Your task to perform on an android device: toggle location history Image 0: 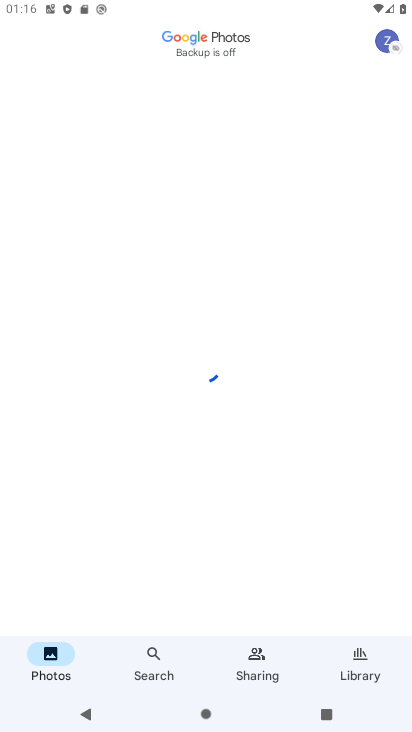
Step 0: press home button
Your task to perform on an android device: toggle location history Image 1: 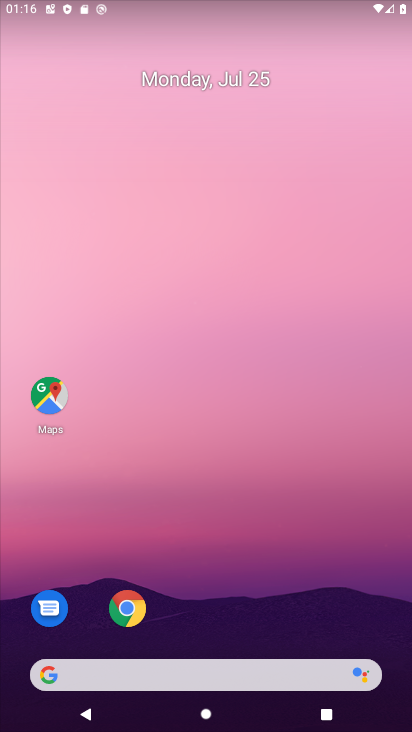
Step 1: drag from (210, 666) to (213, 48)
Your task to perform on an android device: toggle location history Image 2: 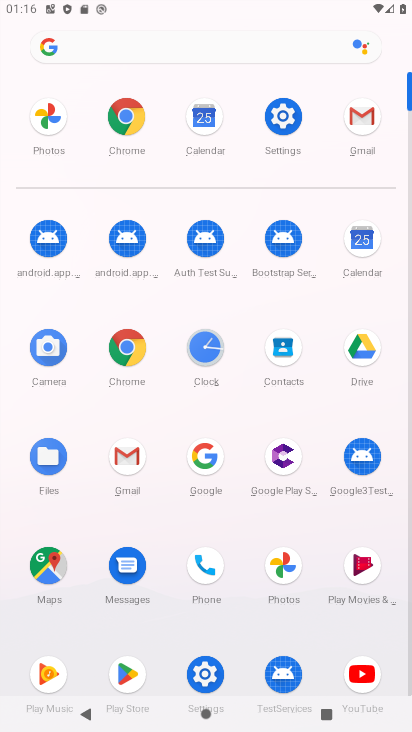
Step 2: click (278, 113)
Your task to perform on an android device: toggle location history Image 3: 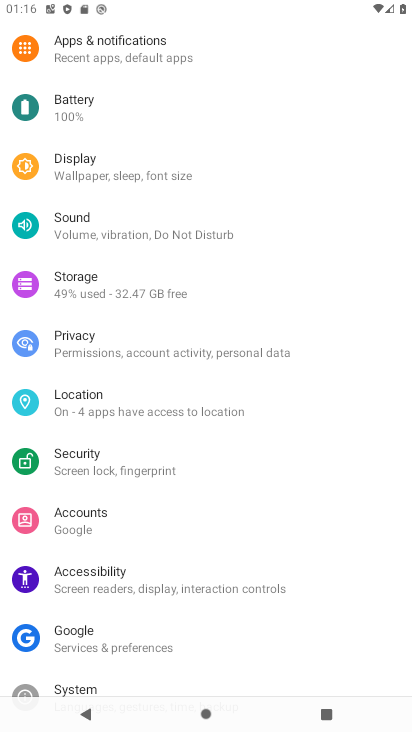
Step 3: click (112, 413)
Your task to perform on an android device: toggle location history Image 4: 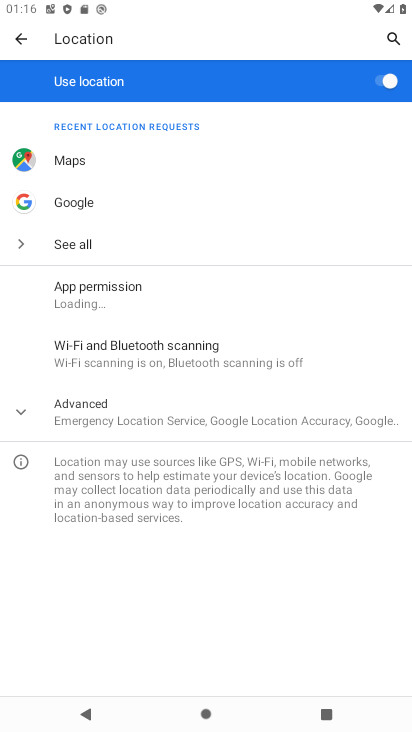
Step 4: click (118, 397)
Your task to perform on an android device: toggle location history Image 5: 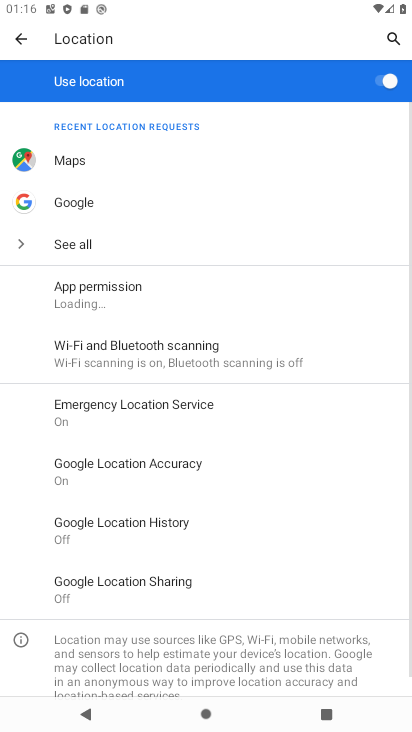
Step 5: click (164, 517)
Your task to perform on an android device: toggle location history Image 6: 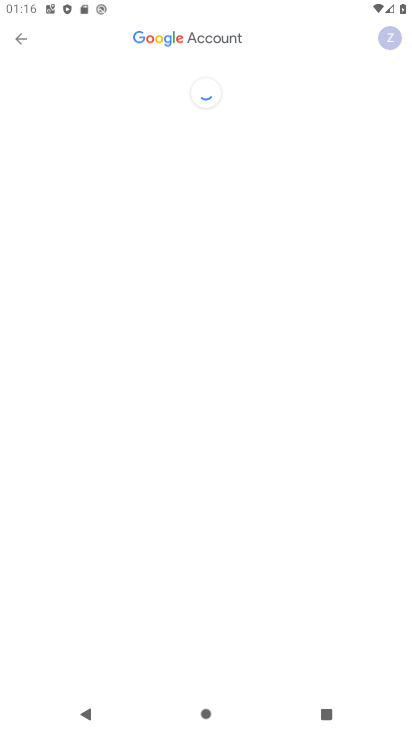
Step 6: drag from (267, 610) to (218, 211)
Your task to perform on an android device: toggle location history Image 7: 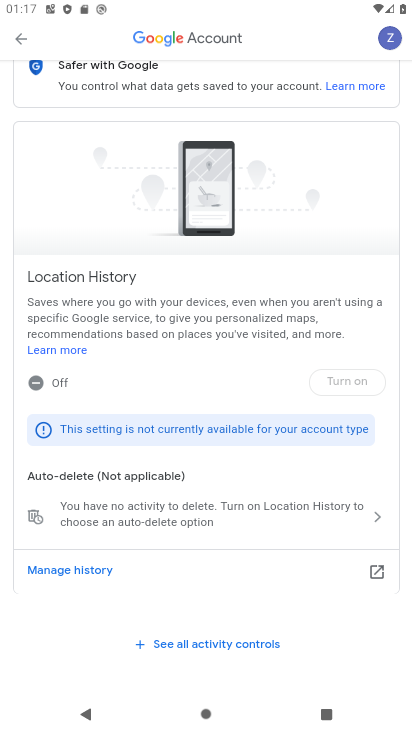
Step 7: click (49, 438)
Your task to perform on an android device: toggle location history Image 8: 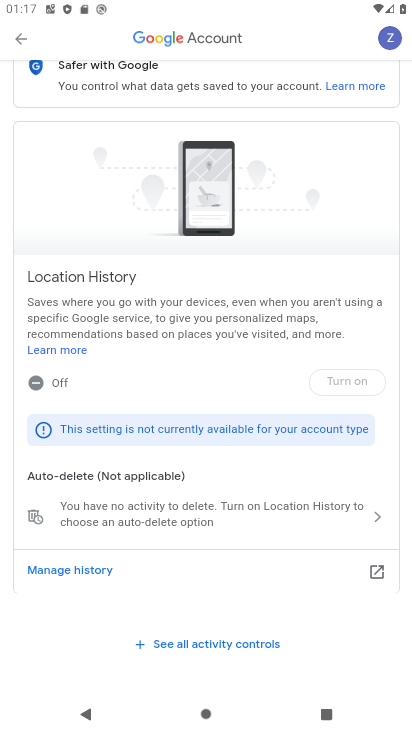
Step 8: task complete